Your task to perform on an android device: change keyboard looks Image 0: 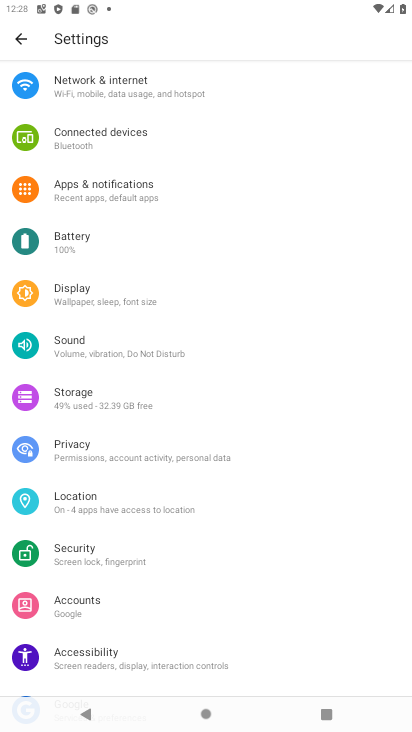
Step 0: drag from (209, 614) to (271, 228)
Your task to perform on an android device: change keyboard looks Image 1: 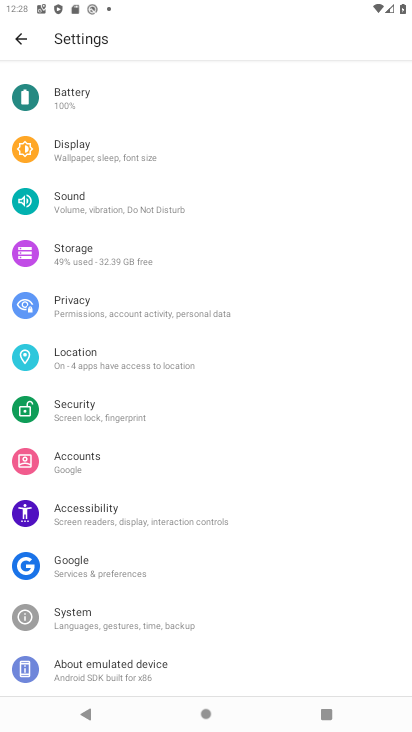
Step 1: click (173, 625)
Your task to perform on an android device: change keyboard looks Image 2: 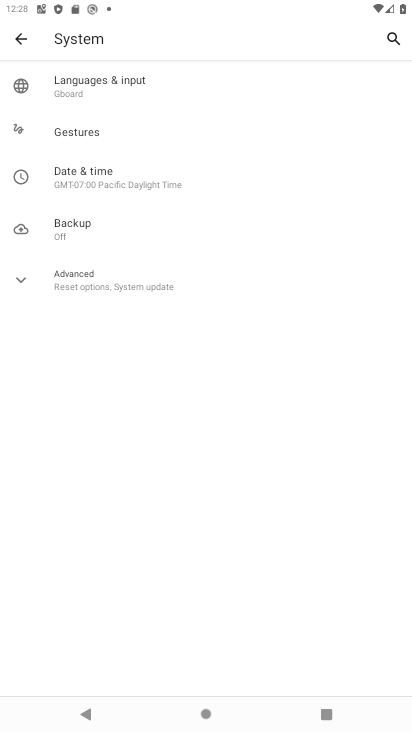
Step 2: click (153, 79)
Your task to perform on an android device: change keyboard looks Image 3: 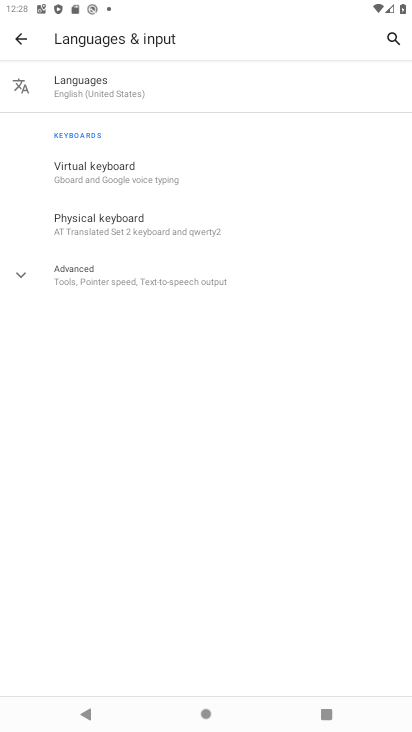
Step 3: click (122, 162)
Your task to perform on an android device: change keyboard looks Image 4: 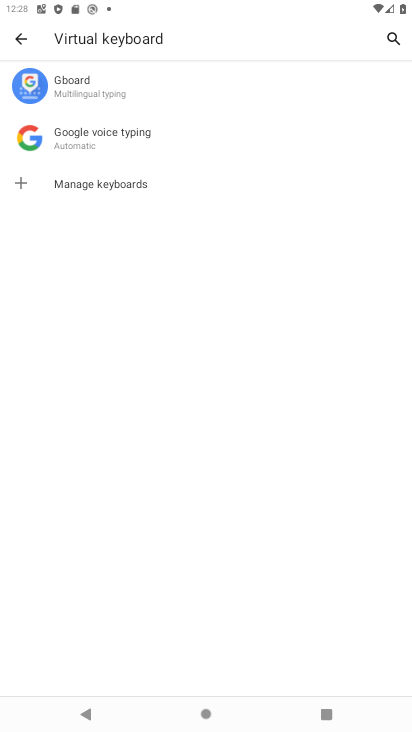
Step 4: click (100, 82)
Your task to perform on an android device: change keyboard looks Image 5: 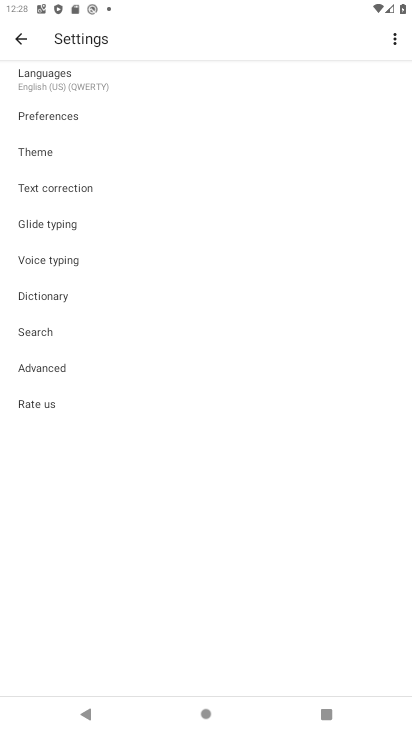
Step 5: click (64, 146)
Your task to perform on an android device: change keyboard looks Image 6: 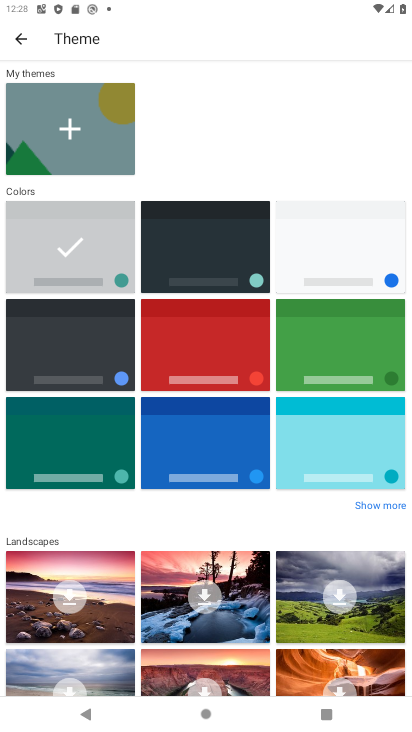
Step 6: click (207, 464)
Your task to perform on an android device: change keyboard looks Image 7: 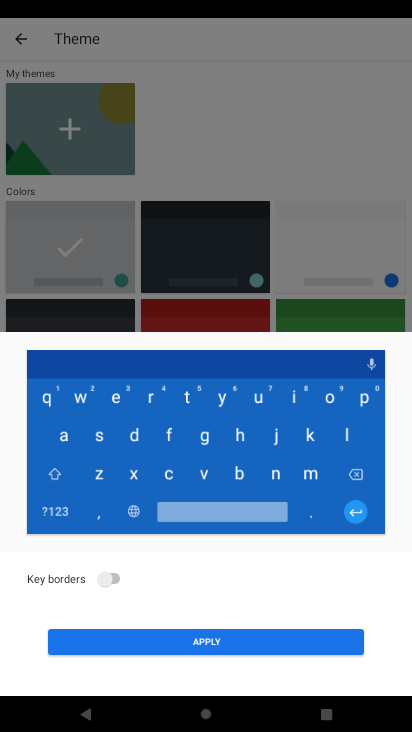
Step 7: click (214, 652)
Your task to perform on an android device: change keyboard looks Image 8: 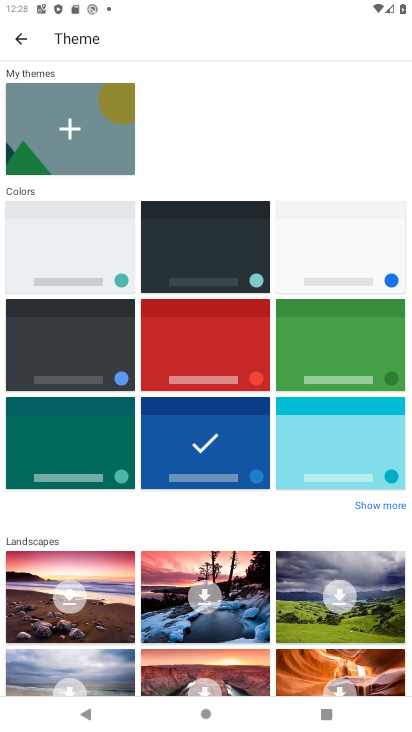
Step 8: task complete